Your task to perform on an android device: turn off notifications settings in the gmail app Image 0: 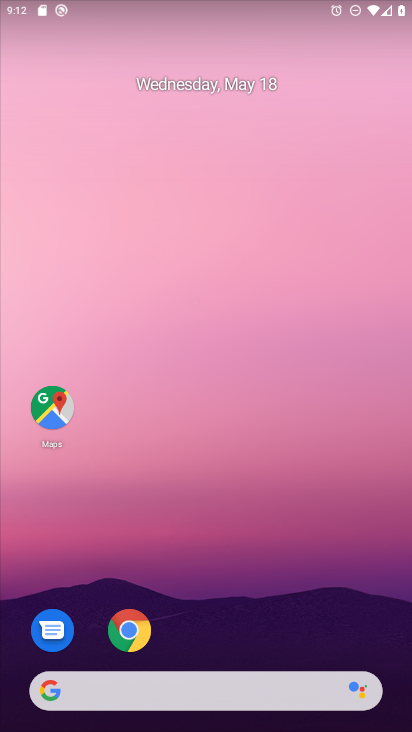
Step 0: drag from (201, 660) to (160, 6)
Your task to perform on an android device: turn off notifications settings in the gmail app Image 1: 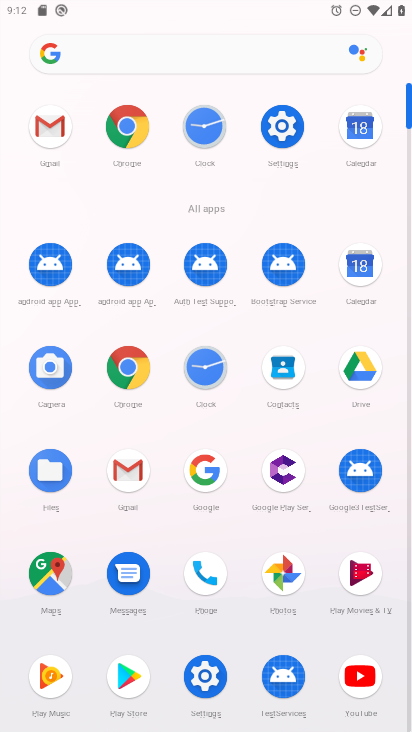
Step 1: click (142, 471)
Your task to perform on an android device: turn off notifications settings in the gmail app Image 2: 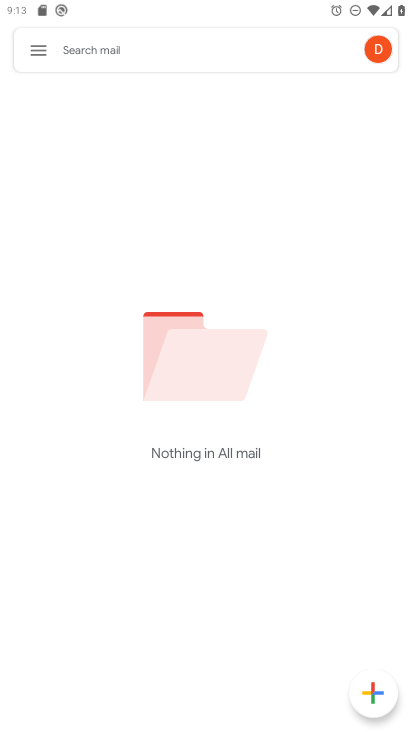
Step 2: click (38, 57)
Your task to perform on an android device: turn off notifications settings in the gmail app Image 3: 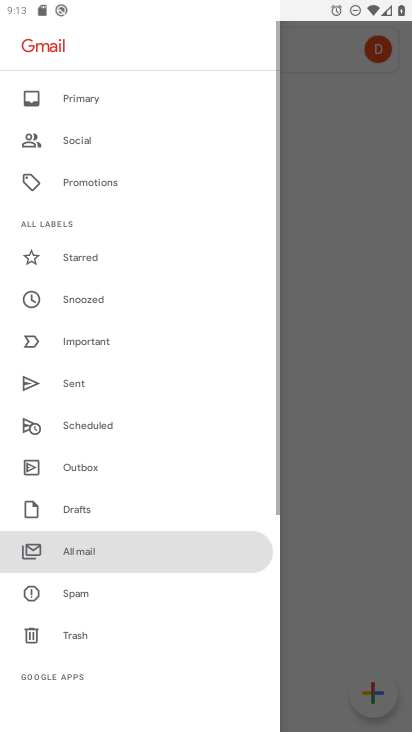
Step 3: drag from (129, 543) to (90, 106)
Your task to perform on an android device: turn off notifications settings in the gmail app Image 4: 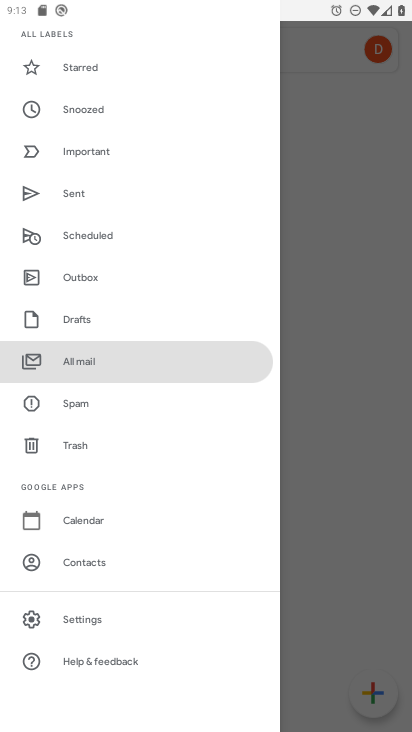
Step 4: click (98, 616)
Your task to perform on an android device: turn off notifications settings in the gmail app Image 5: 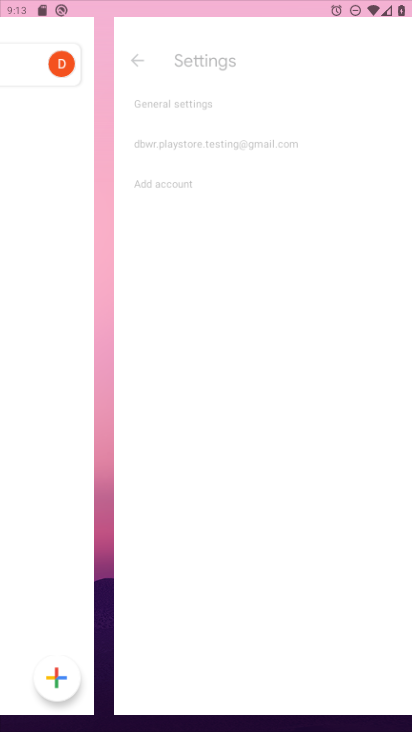
Step 5: drag from (97, 616) to (97, 225)
Your task to perform on an android device: turn off notifications settings in the gmail app Image 6: 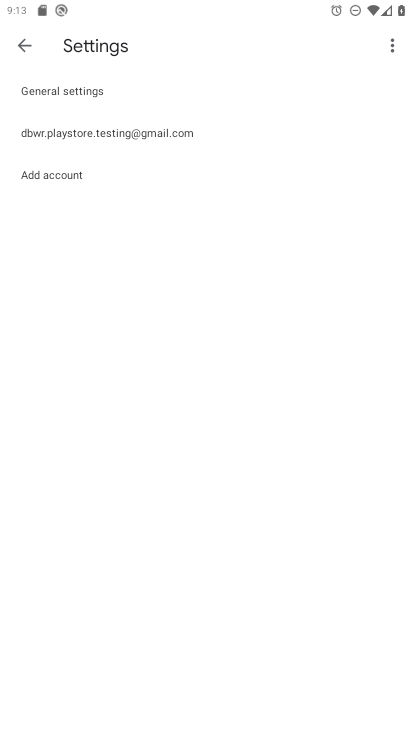
Step 6: click (82, 103)
Your task to perform on an android device: turn off notifications settings in the gmail app Image 7: 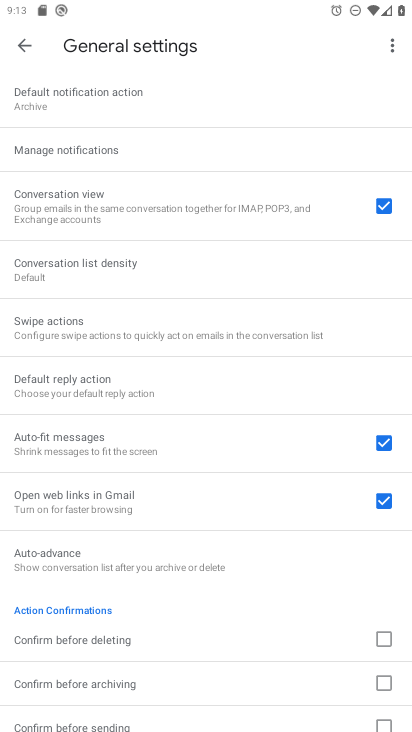
Step 7: click (158, 132)
Your task to perform on an android device: turn off notifications settings in the gmail app Image 8: 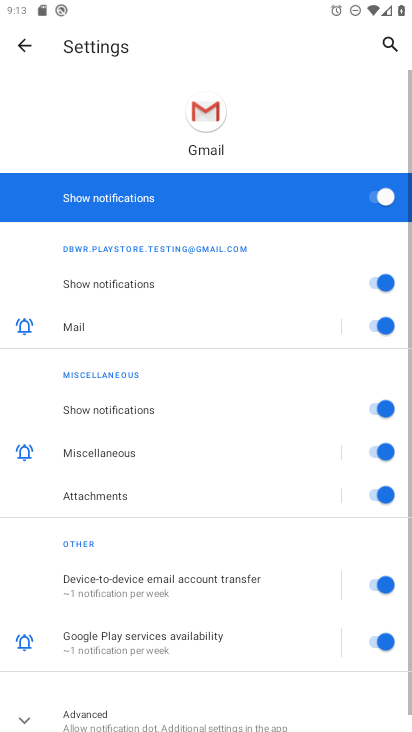
Step 8: click (387, 199)
Your task to perform on an android device: turn off notifications settings in the gmail app Image 9: 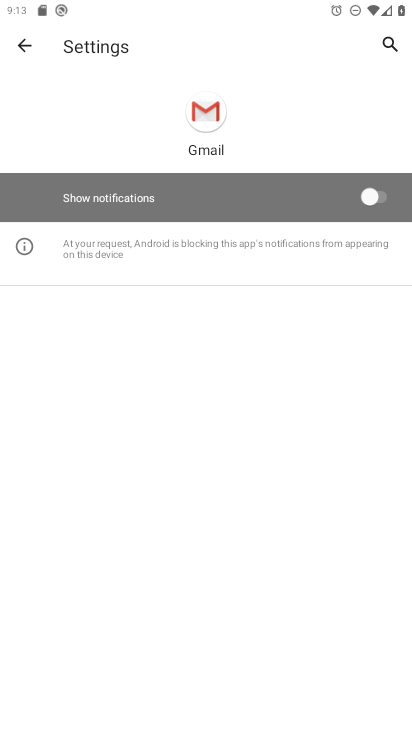
Step 9: task complete